Your task to perform on an android device: When is my next appointment? Image 0: 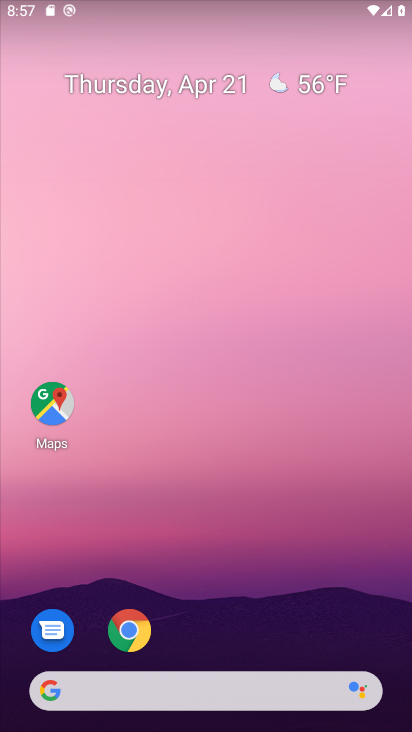
Step 0: drag from (188, 575) to (273, 162)
Your task to perform on an android device: When is my next appointment? Image 1: 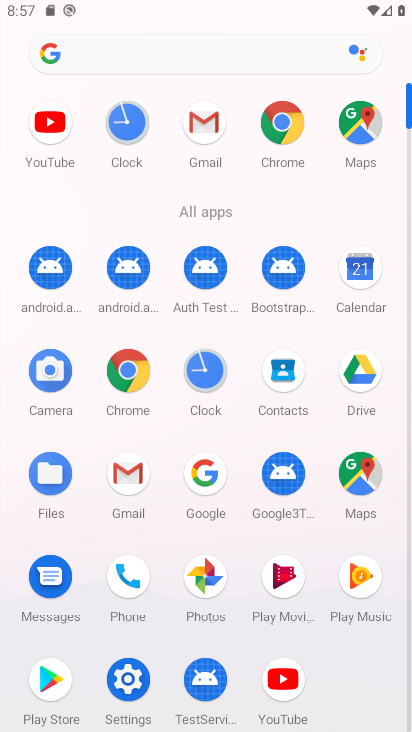
Step 1: click (363, 290)
Your task to perform on an android device: When is my next appointment? Image 2: 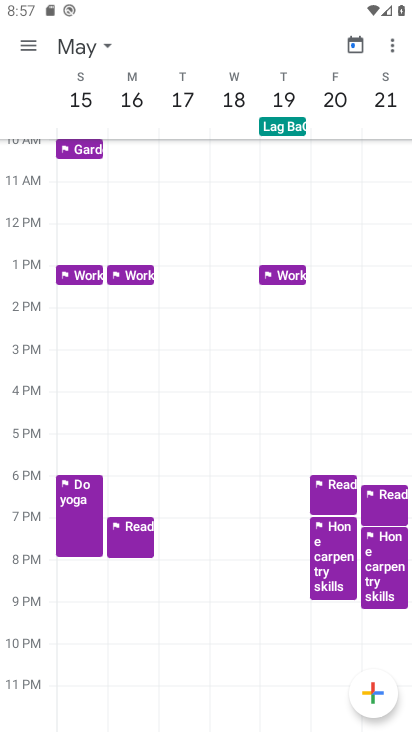
Step 2: click (35, 57)
Your task to perform on an android device: When is my next appointment? Image 3: 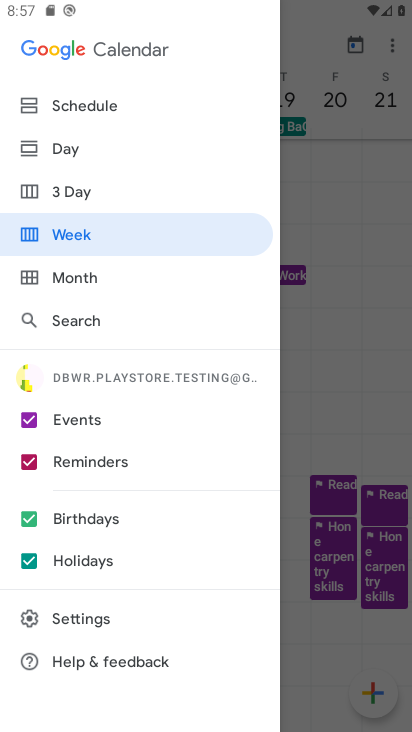
Step 3: click (29, 472)
Your task to perform on an android device: When is my next appointment? Image 4: 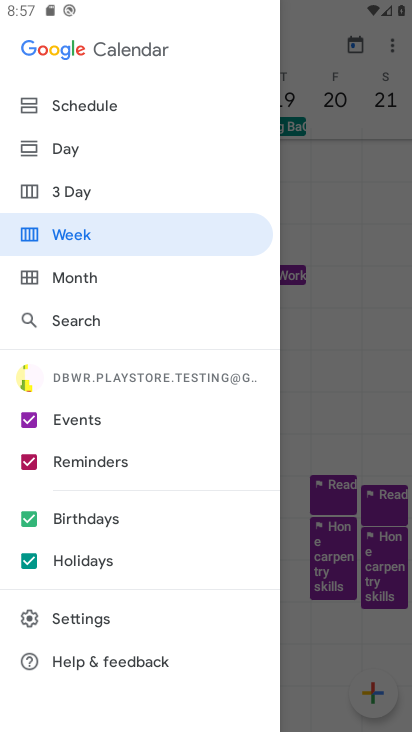
Step 4: click (32, 522)
Your task to perform on an android device: When is my next appointment? Image 5: 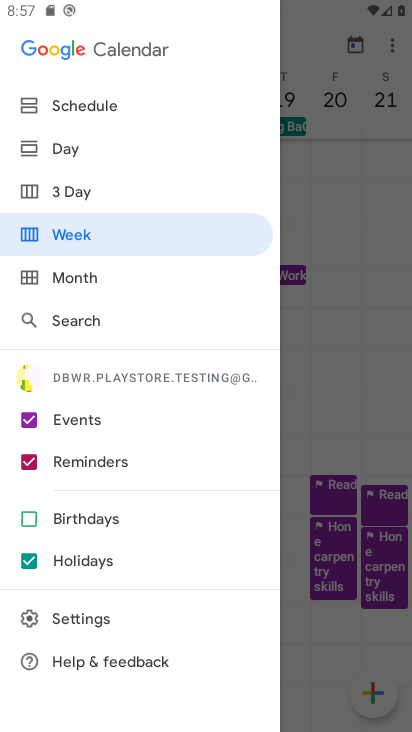
Step 5: click (24, 567)
Your task to perform on an android device: When is my next appointment? Image 6: 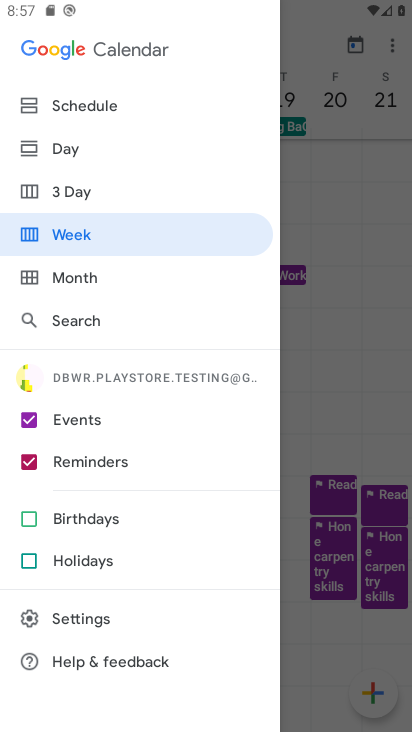
Step 6: click (28, 468)
Your task to perform on an android device: When is my next appointment? Image 7: 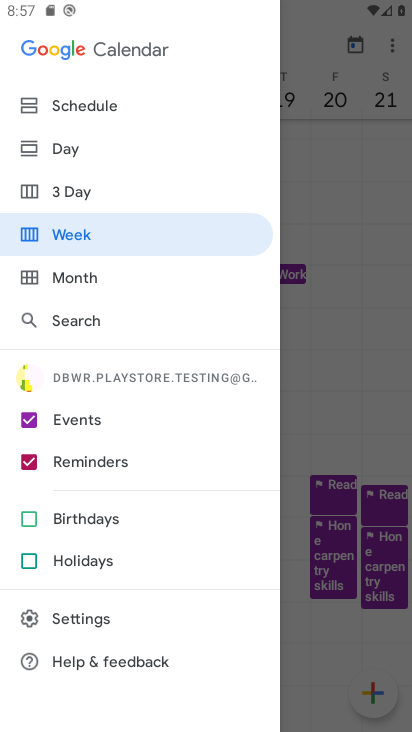
Step 7: click (25, 463)
Your task to perform on an android device: When is my next appointment? Image 8: 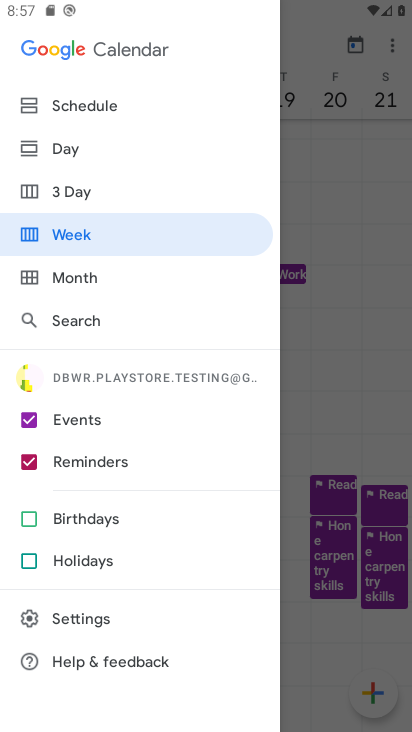
Step 8: click (25, 463)
Your task to perform on an android device: When is my next appointment? Image 9: 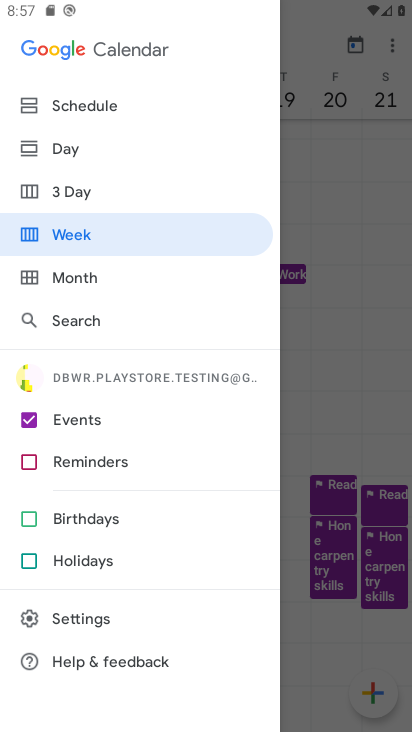
Step 9: click (82, 279)
Your task to perform on an android device: When is my next appointment? Image 10: 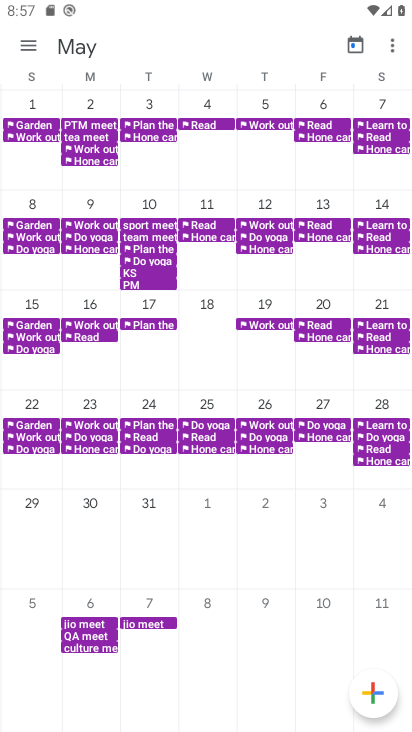
Step 10: task complete